Your task to perform on an android device: Open calendar and show me the third week of next month Image 0: 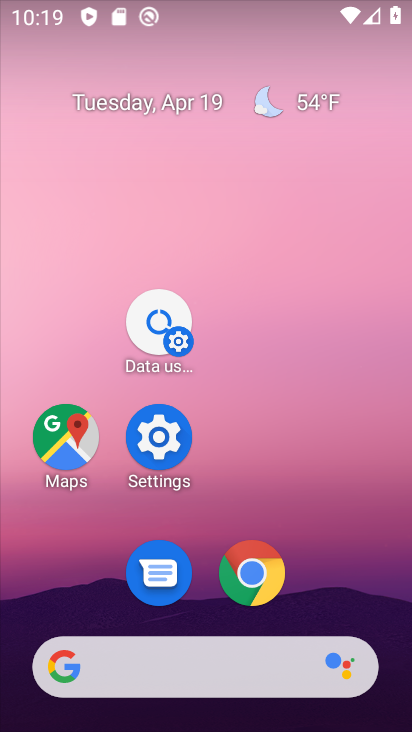
Step 0: drag from (341, 503) to (338, 2)
Your task to perform on an android device: Open calendar and show me the third week of next month Image 1: 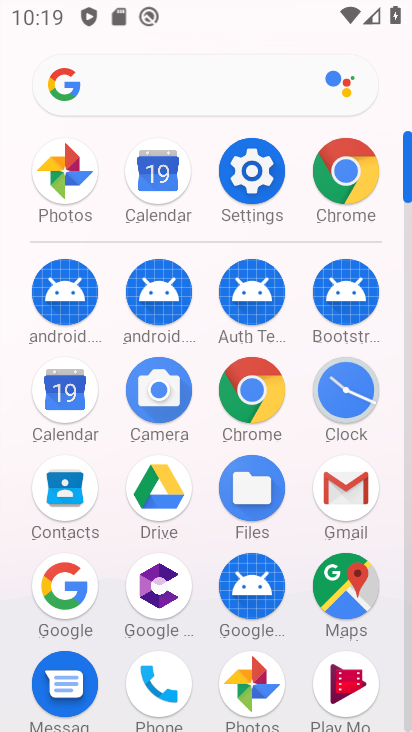
Step 1: click (162, 166)
Your task to perform on an android device: Open calendar and show me the third week of next month Image 2: 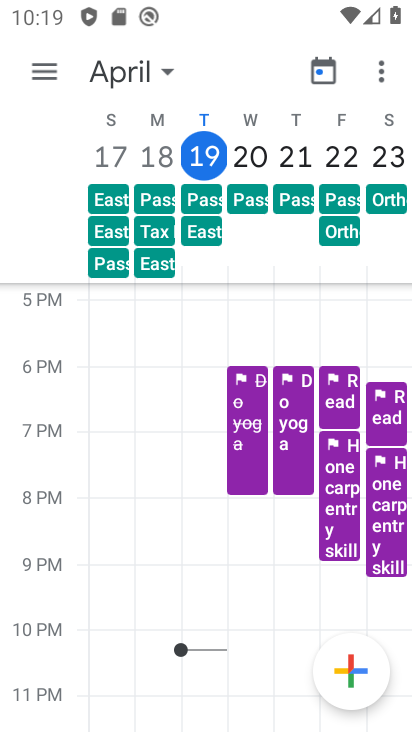
Step 2: drag from (307, 237) to (5, 239)
Your task to perform on an android device: Open calendar and show me the third week of next month Image 3: 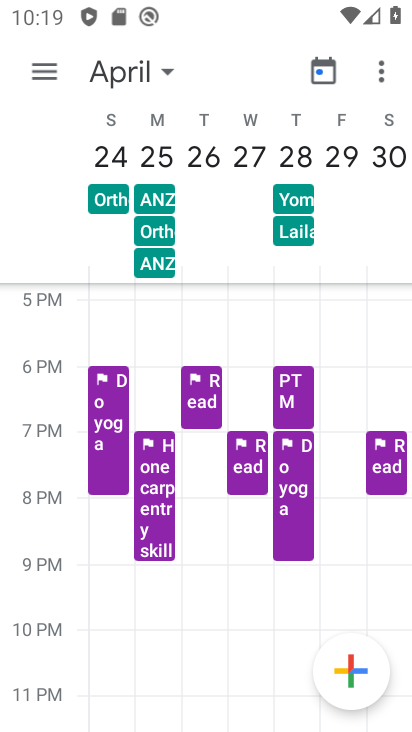
Step 3: click (171, 71)
Your task to perform on an android device: Open calendar and show me the third week of next month Image 4: 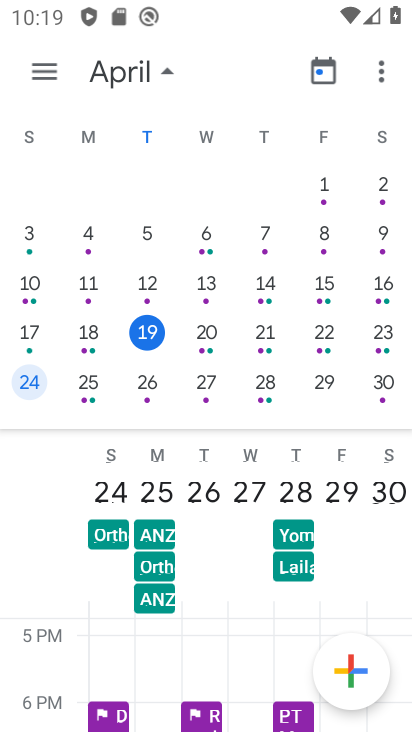
Step 4: task complete